Your task to perform on an android device: Open ESPN.com Image 0: 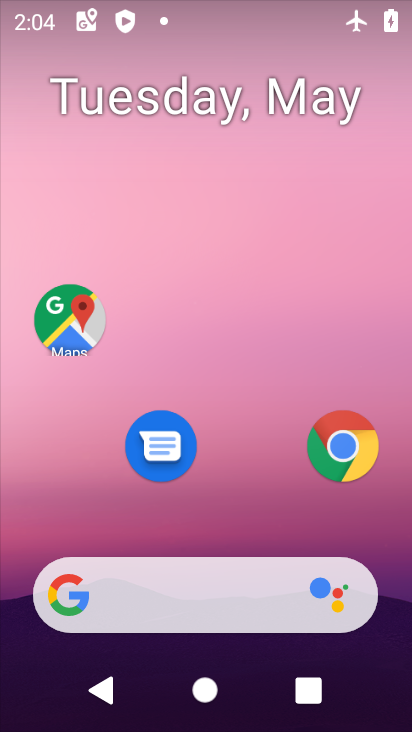
Step 0: click (319, 444)
Your task to perform on an android device: Open ESPN.com Image 1: 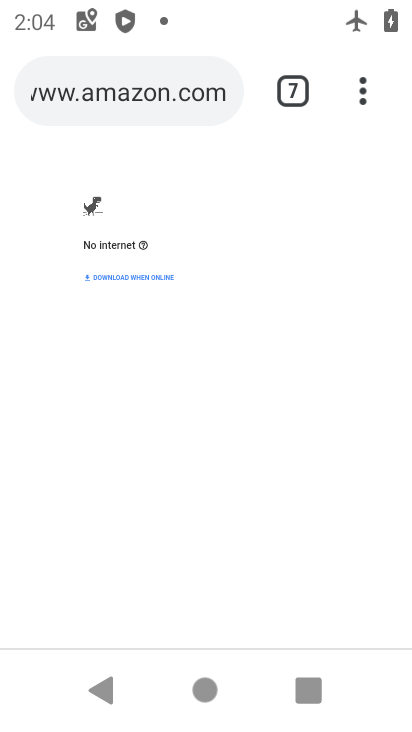
Step 1: press home button
Your task to perform on an android device: Open ESPN.com Image 2: 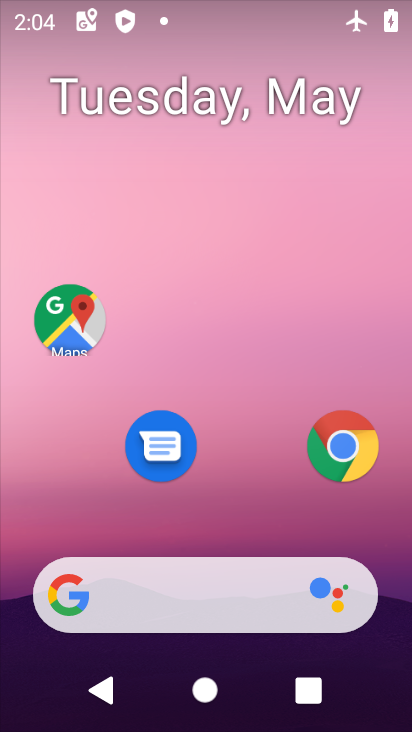
Step 2: click (362, 455)
Your task to perform on an android device: Open ESPN.com Image 3: 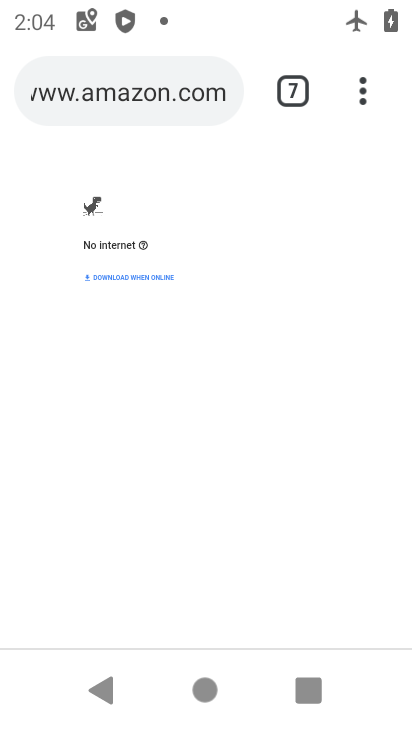
Step 3: click (281, 85)
Your task to perform on an android device: Open ESPN.com Image 4: 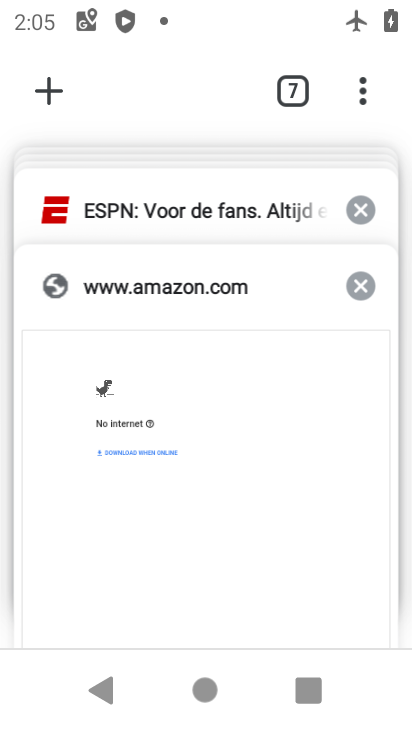
Step 4: click (76, 187)
Your task to perform on an android device: Open ESPN.com Image 5: 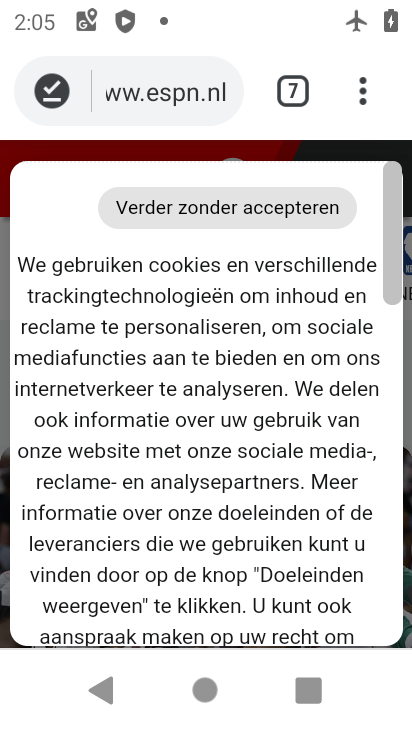
Step 5: task complete